Your task to perform on an android device: toggle sleep mode Image 0: 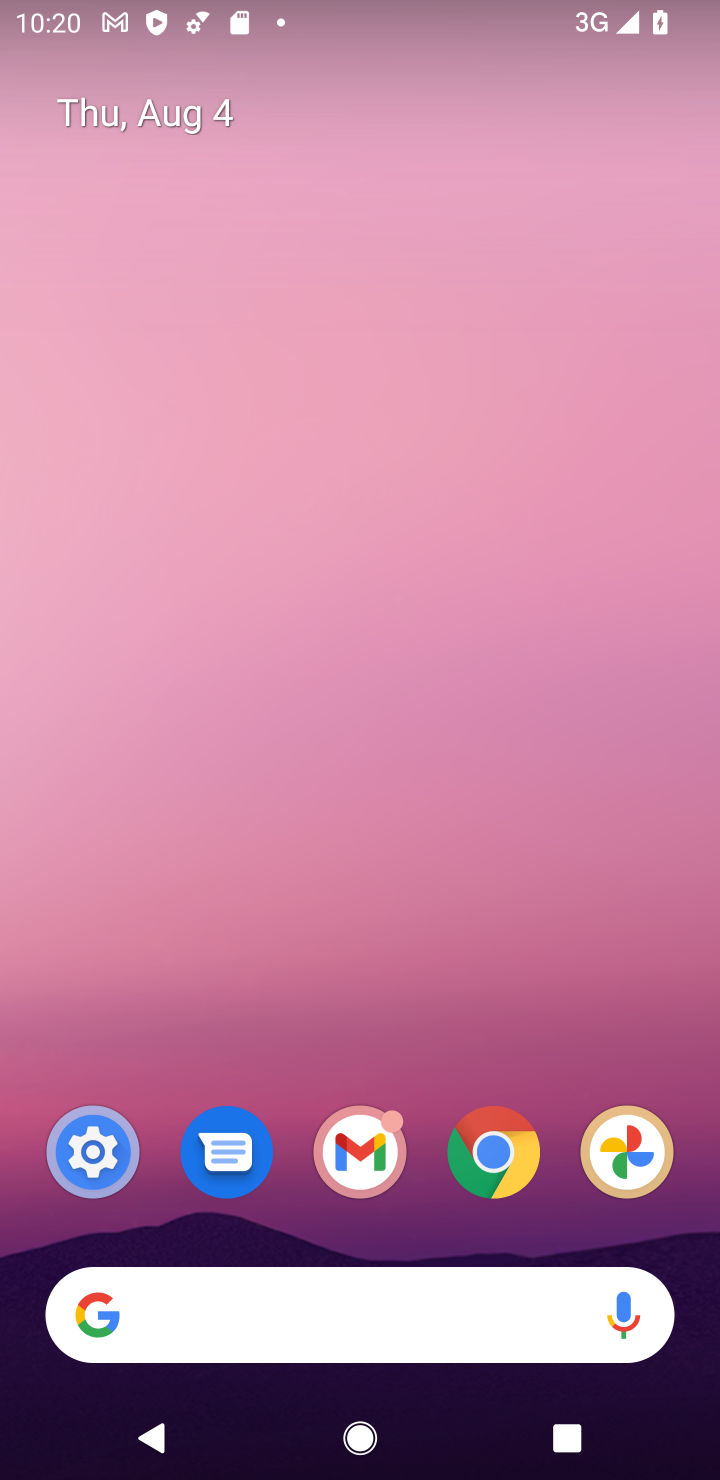
Step 0: drag from (327, 712) to (335, 250)
Your task to perform on an android device: toggle sleep mode Image 1: 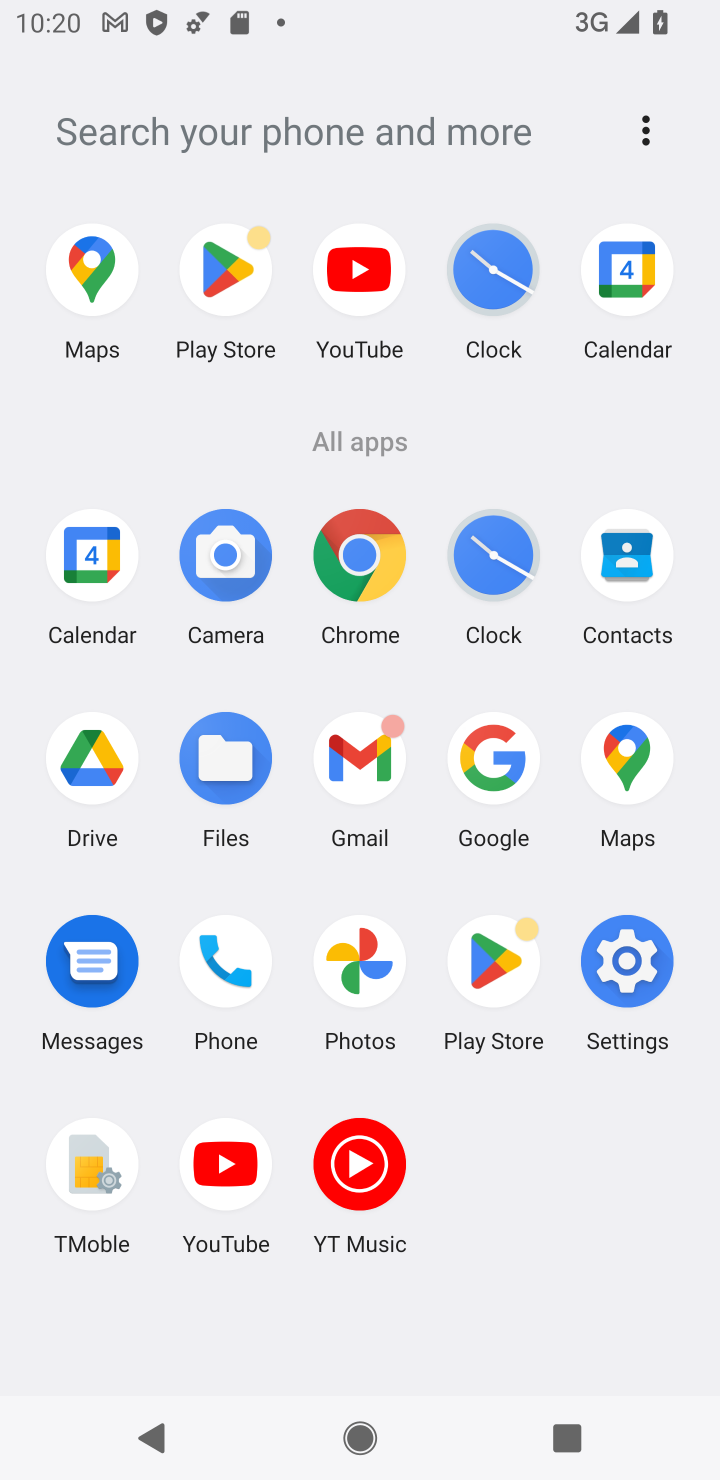
Step 1: click (635, 948)
Your task to perform on an android device: toggle sleep mode Image 2: 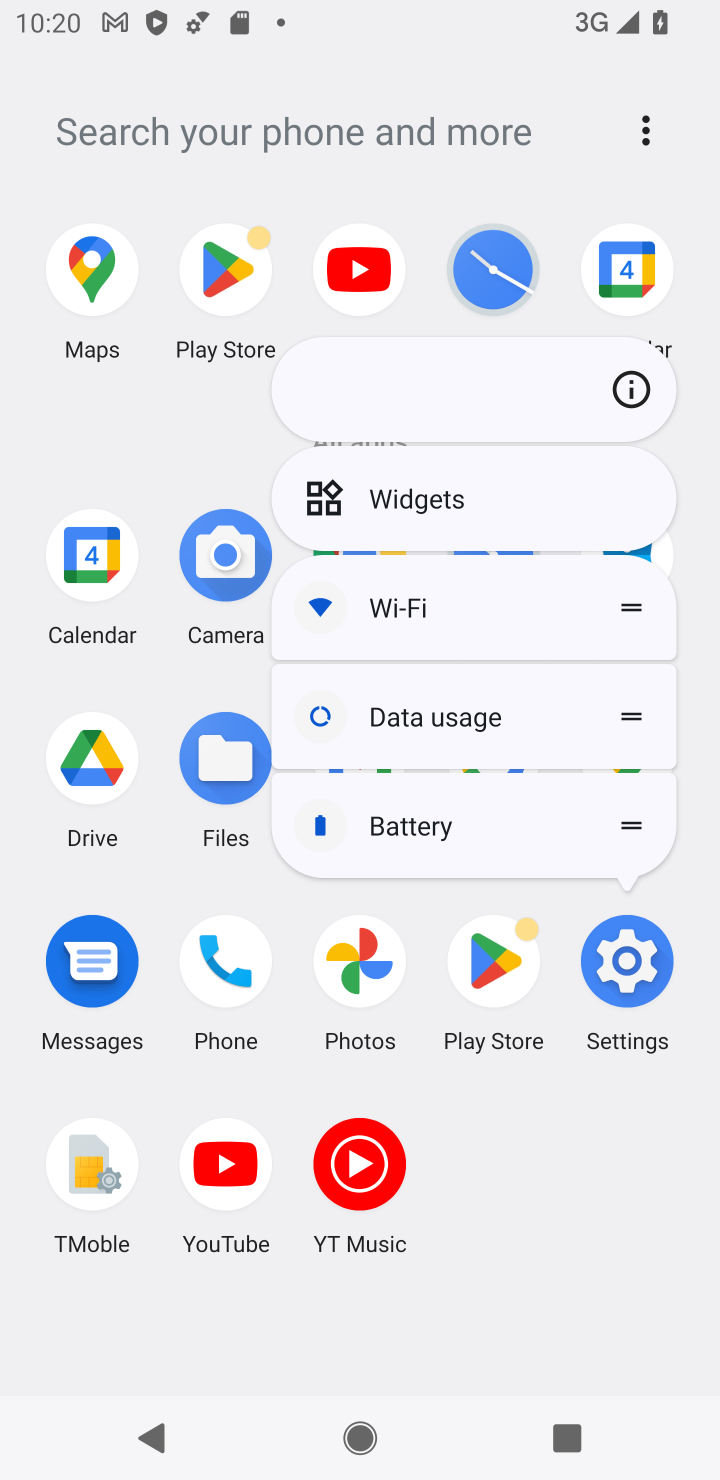
Step 2: click (631, 963)
Your task to perform on an android device: toggle sleep mode Image 3: 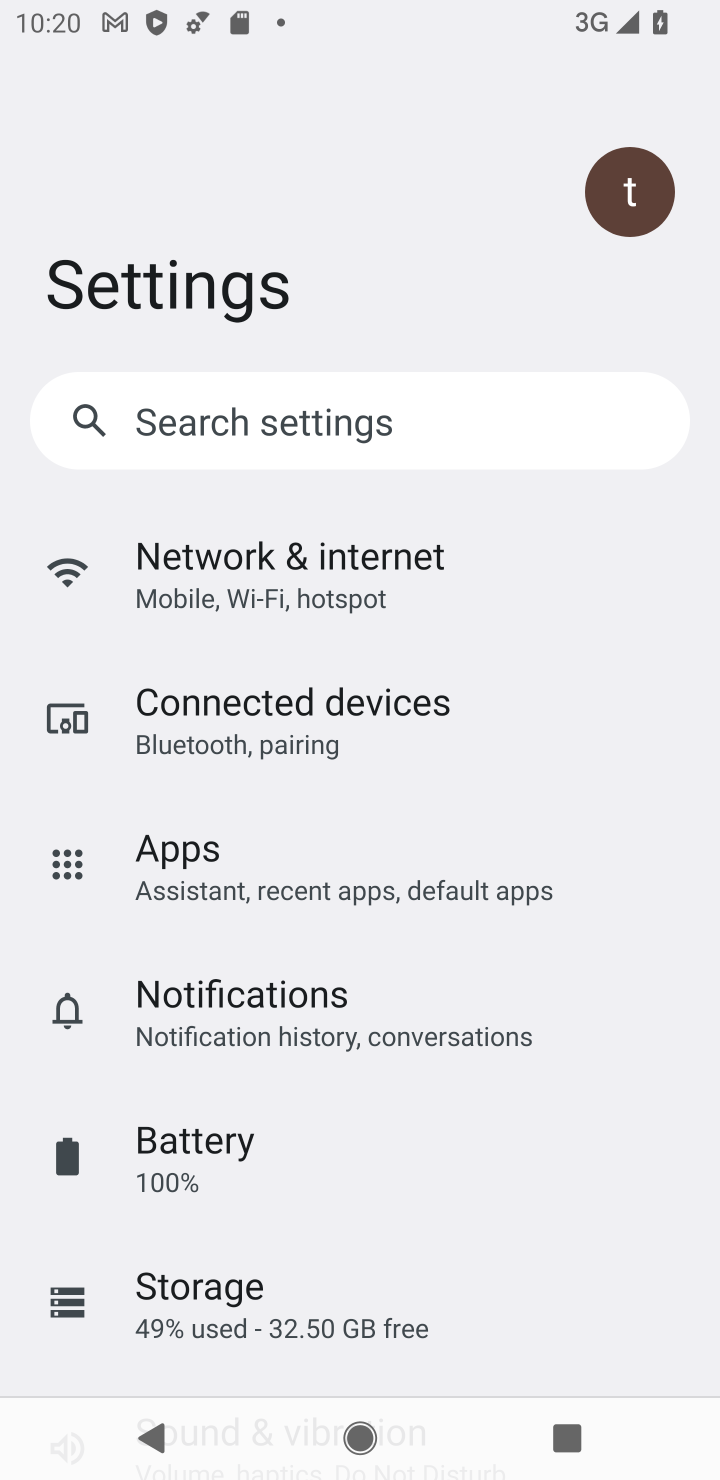
Step 3: click (352, 428)
Your task to perform on an android device: toggle sleep mode Image 4: 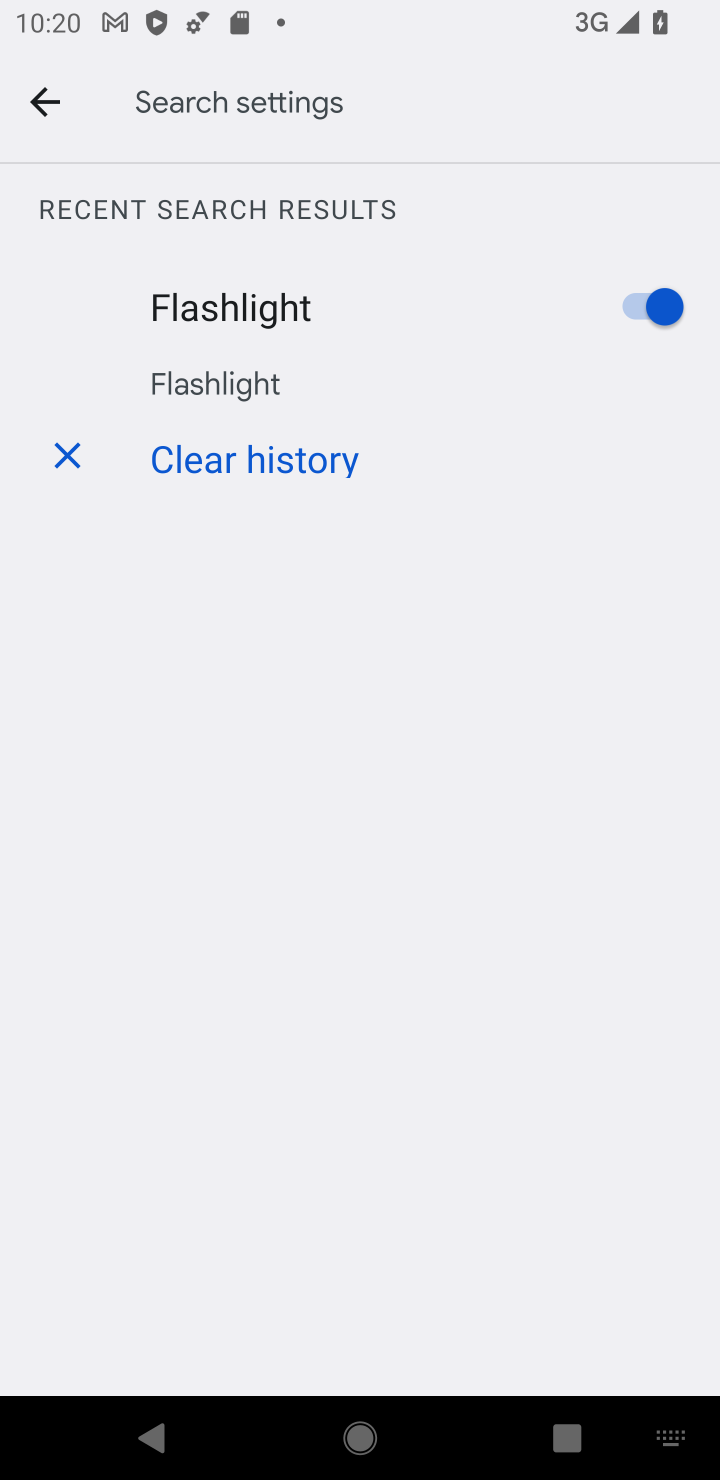
Step 4: type "sleep mode"
Your task to perform on an android device: toggle sleep mode Image 5: 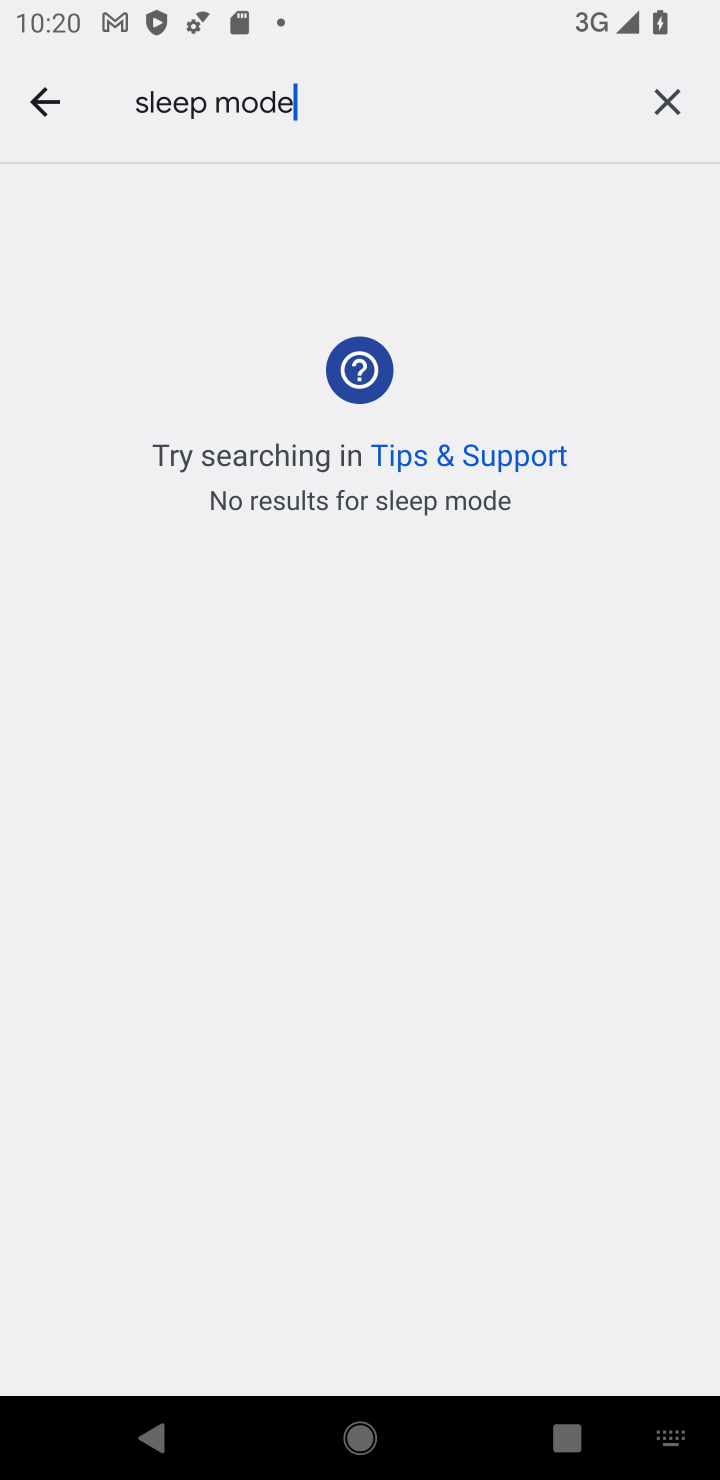
Step 5: task complete